Your task to perform on an android device: Do I have any events tomorrow? Image 0: 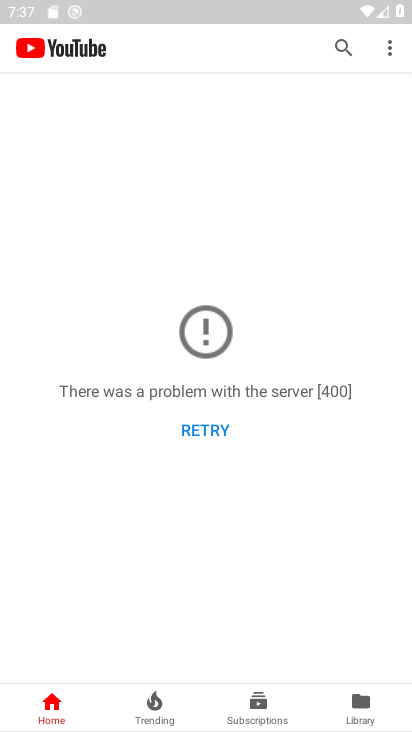
Step 0: press home button
Your task to perform on an android device: Do I have any events tomorrow? Image 1: 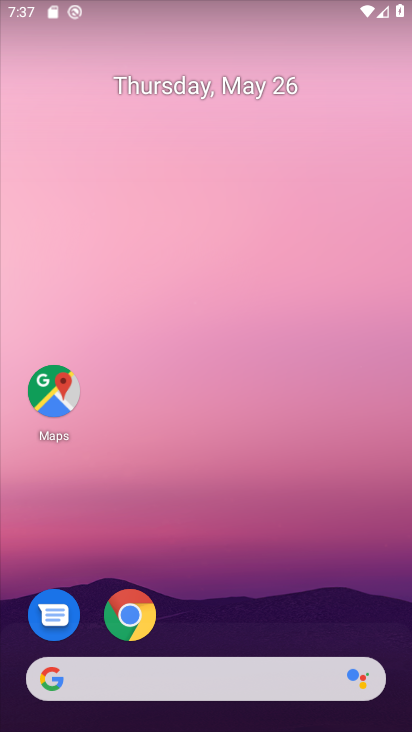
Step 1: drag from (252, 462) to (249, 260)
Your task to perform on an android device: Do I have any events tomorrow? Image 2: 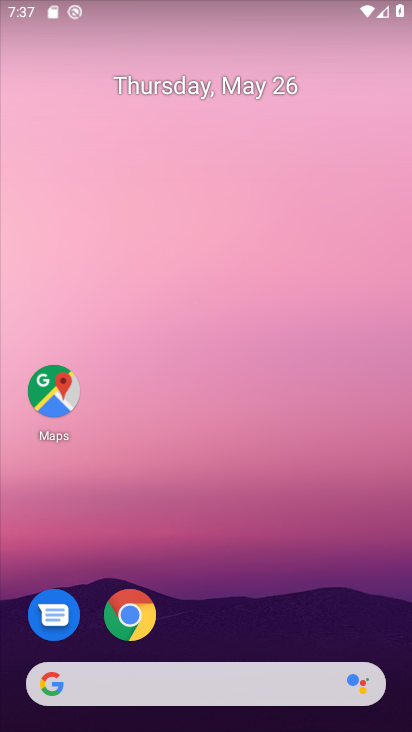
Step 2: drag from (238, 621) to (255, 150)
Your task to perform on an android device: Do I have any events tomorrow? Image 3: 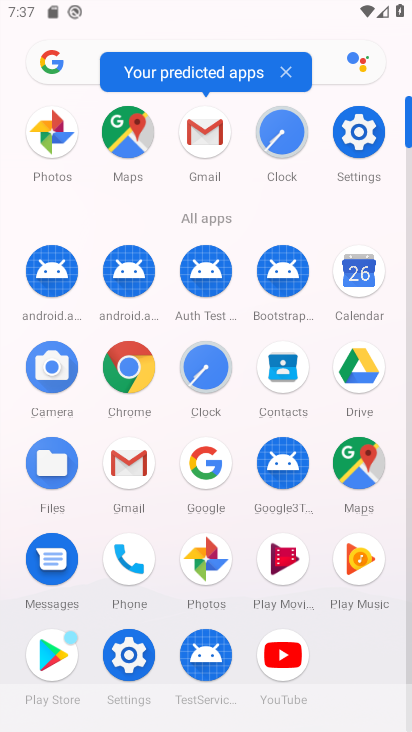
Step 3: click (364, 257)
Your task to perform on an android device: Do I have any events tomorrow? Image 4: 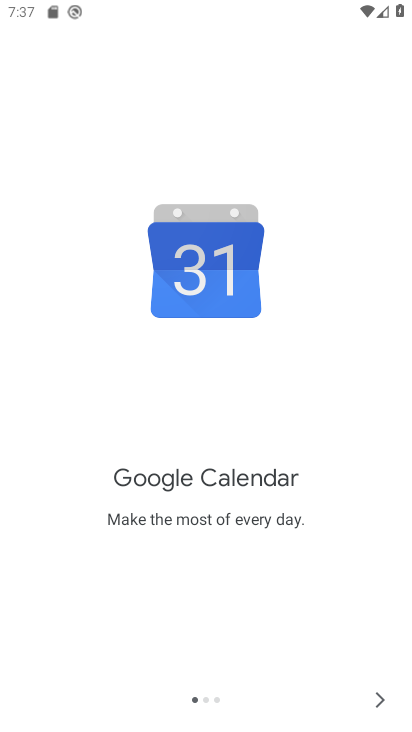
Step 4: click (366, 692)
Your task to perform on an android device: Do I have any events tomorrow? Image 5: 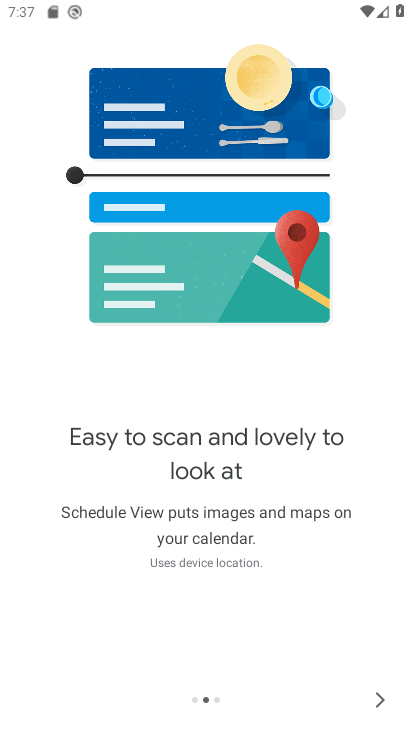
Step 5: click (366, 692)
Your task to perform on an android device: Do I have any events tomorrow? Image 6: 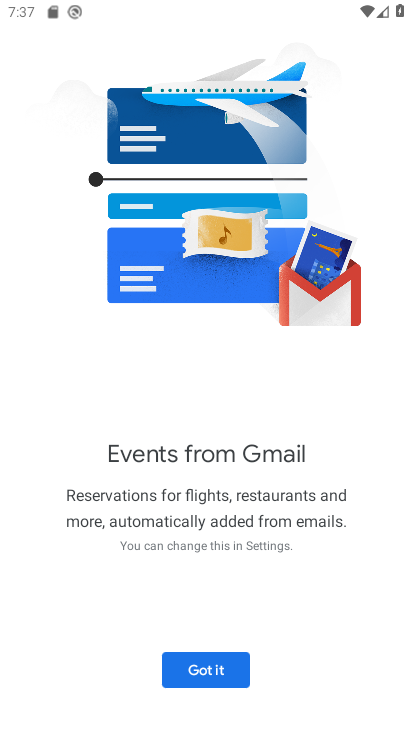
Step 6: click (206, 664)
Your task to perform on an android device: Do I have any events tomorrow? Image 7: 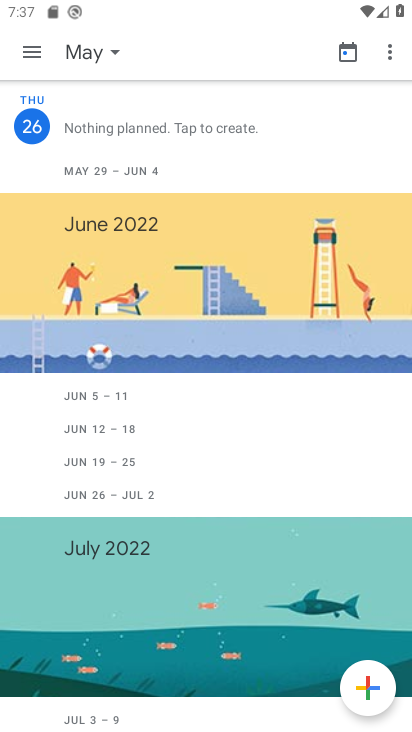
Step 7: click (38, 51)
Your task to perform on an android device: Do I have any events tomorrow? Image 8: 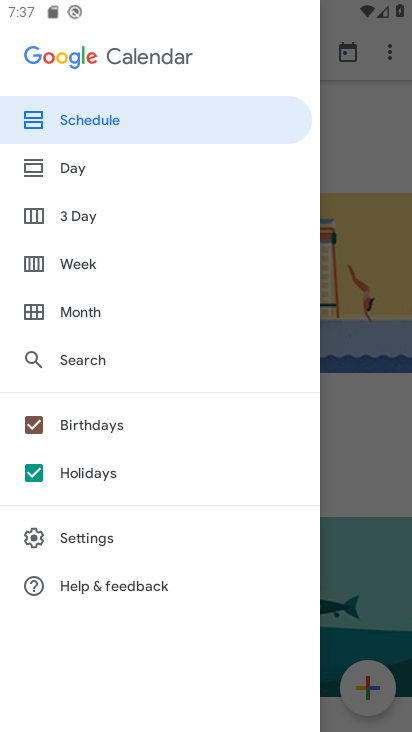
Step 8: click (111, 304)
Your task to perform on an android device: Do I have any events tomorrow? Image 9: 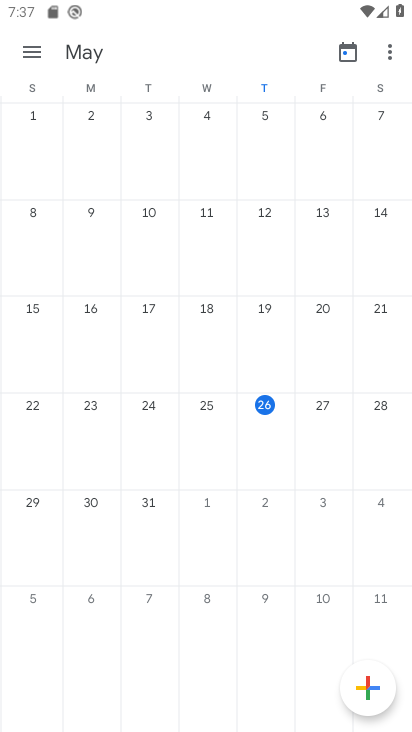
Step 9: click (306, 413)
Your task to perform on an android device: Do I have any events tomorrow? Image 10: 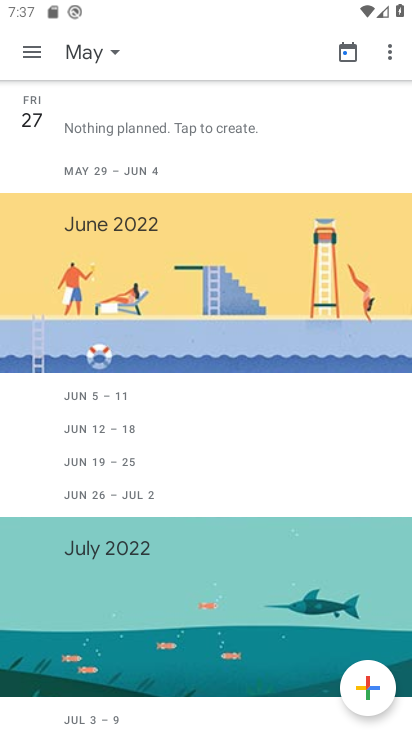
Step 10: drag from (274, 586) to (309, 171)
Your task to perform on an android device: Do I have any events tomorrow? Image 11: 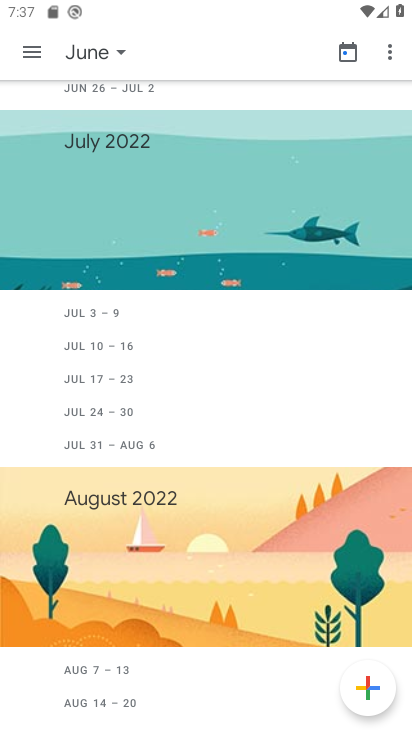
Step 11: click (201, 611)
Your task to perform on an android device: Do I have any events tomorrow? Image 12: 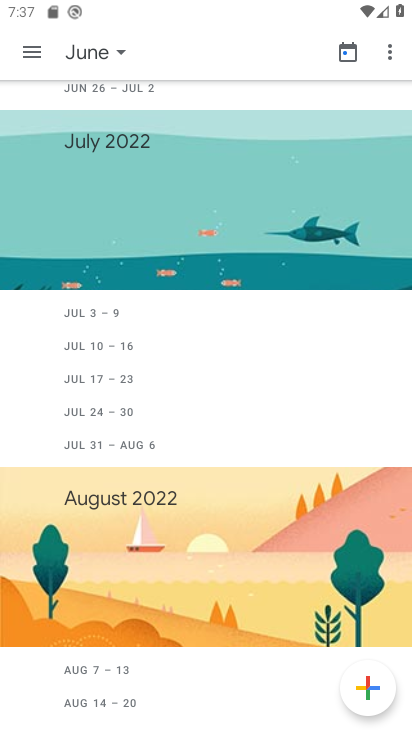
Step 12: click (31, 46)
Your task to perform on an android device: Do I have any events tomorrow? Image 13: 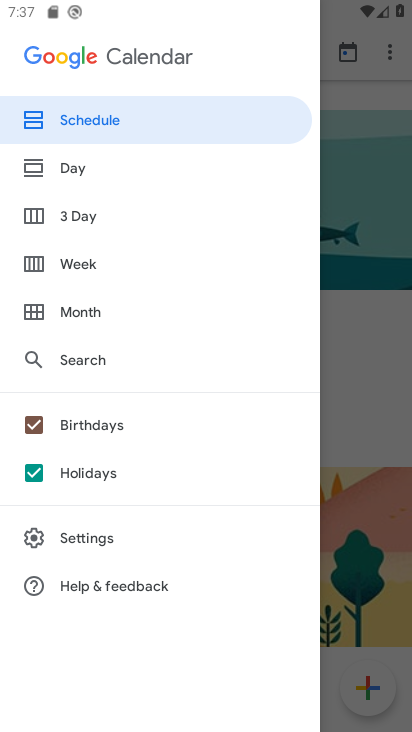
Step 13: click (90, 305)
Your task to perform on an android device: Do I have any events tomorrow? Image 14: 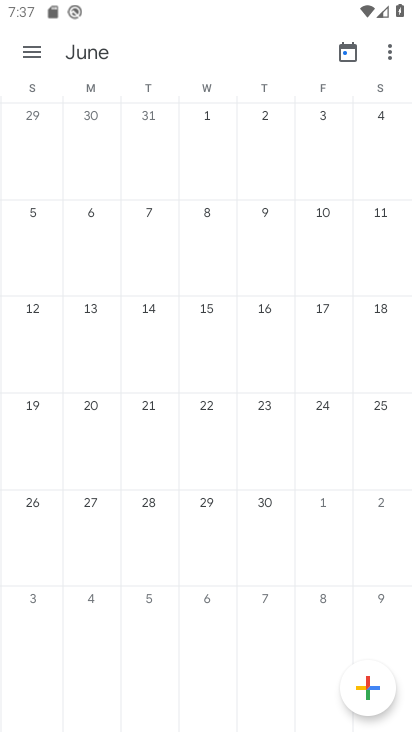
Step 14: click (151, 513)
Your task to perform on an android device: Do I have any events tomorrow? Image 15: 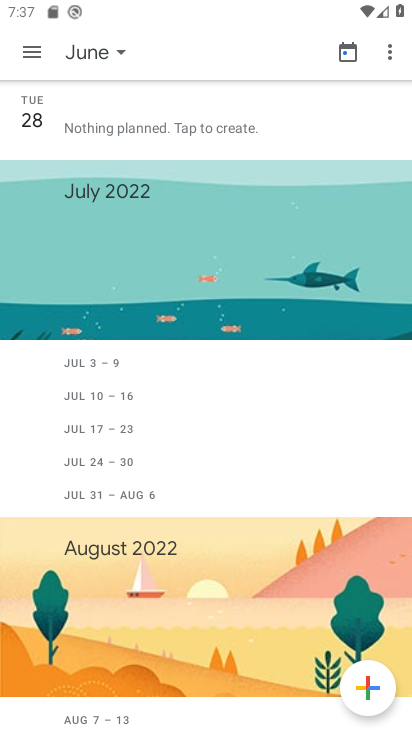
Step 15: click (13, 47)
Your task to perform on an android device: Do I have any events tomorrow? Image 16: 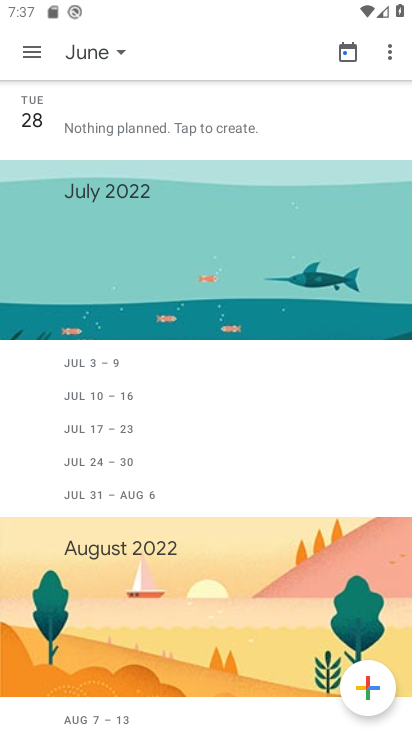
Step 16: click (33, 51)
Your task to perform on an android device: Do I have any events tomorrow? Image 17: 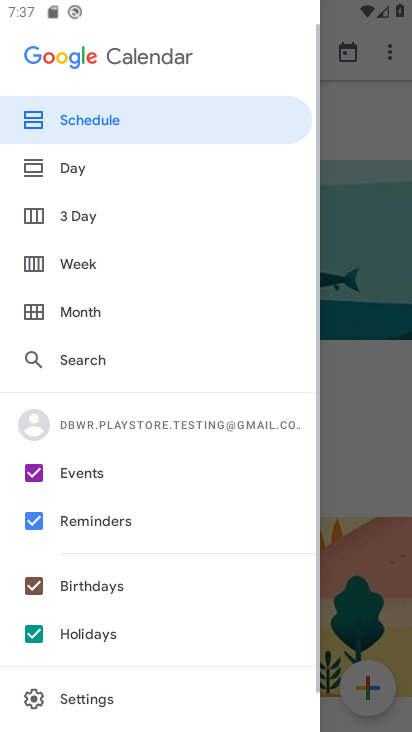
Step 17: click (74, 219)
Your task to perform on an android device: Do I have any events tomorrow? Image 18: 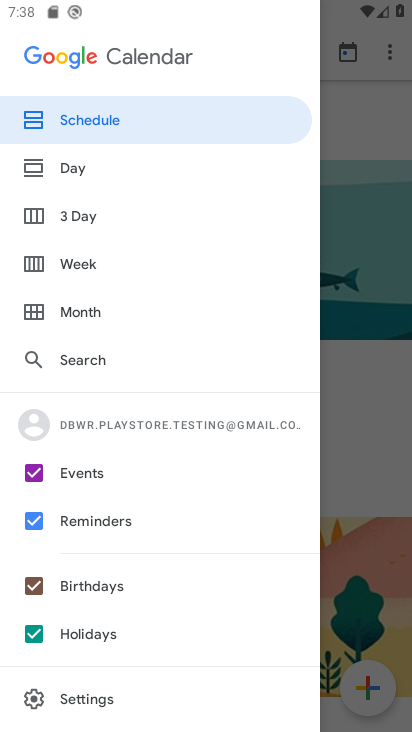
Step 18: click (76, 173)
Your task to perform on an android device: Do I have any events tomorrow? Image 19: 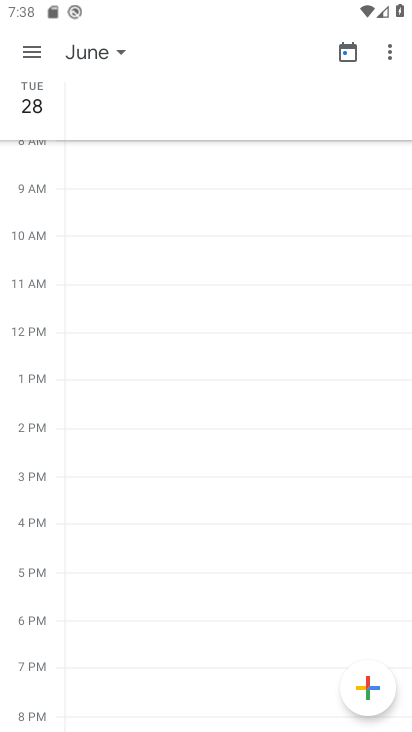
Step 19: task complete